Your task to perform on an android device: turn on data saver in the chrome app Image 0: 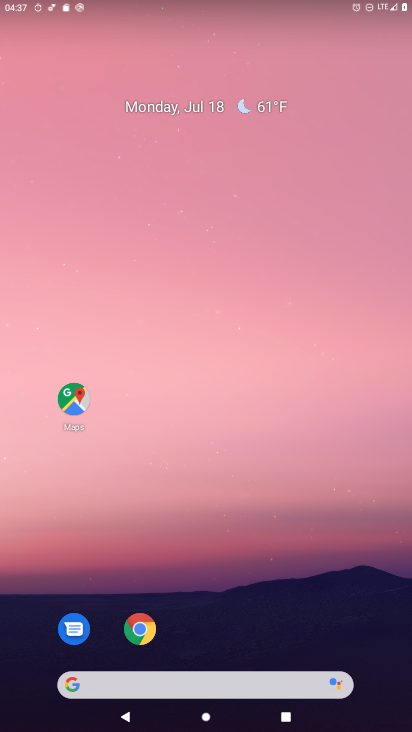
Step 0: click (141, 630)
Your task to perform on an android device: turn on data saver in the chrome app Image 1: 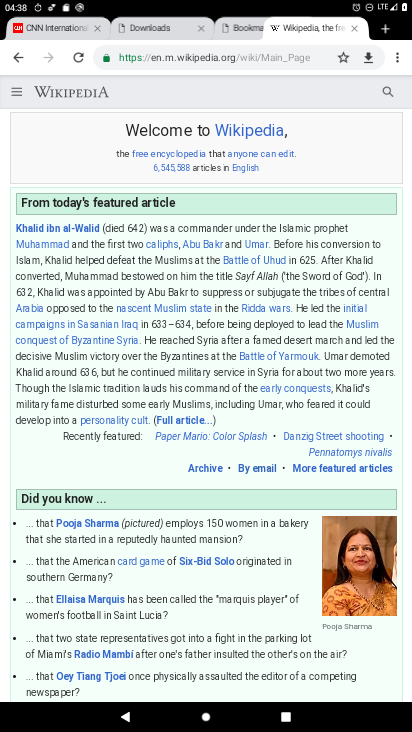
Step 1: click (399, 58)
Your task to perform on an android device: turn on data saver in the chrome app Image 2: 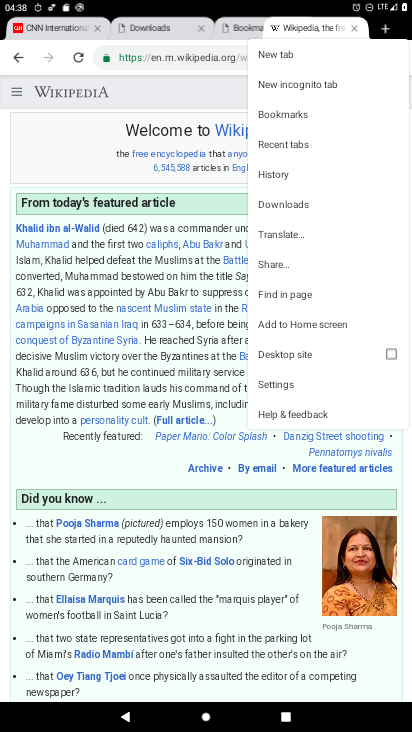
Step 2: click (283, 384)
Your task to perform on an android device: turn on data saver in the chrome app Image 3: 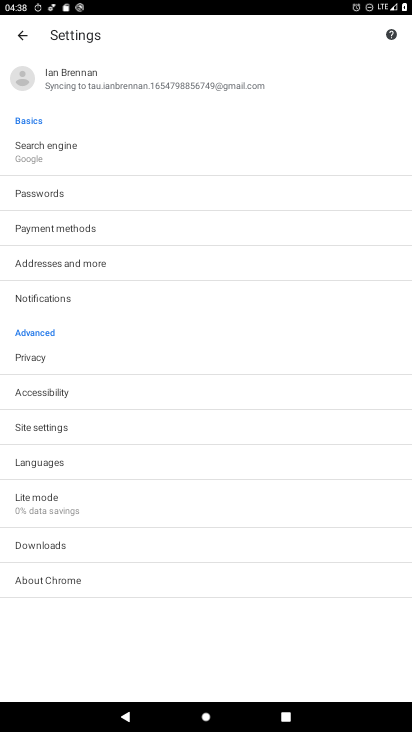
Step 3: click (55, 510)
Your task to perform on an android device: turn on data saver in the chrome app Image 4: 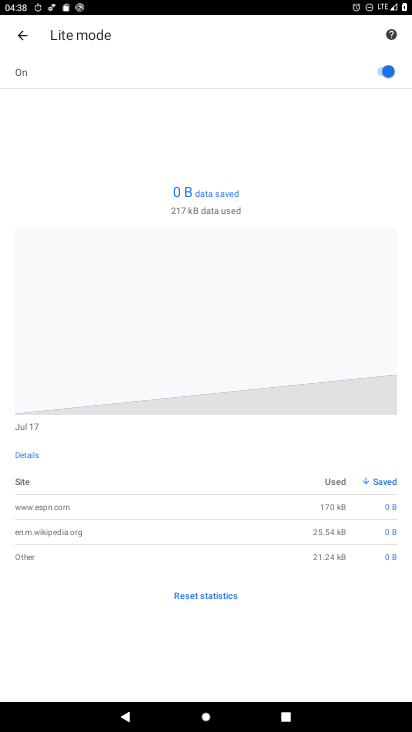
Step 4: task complete